Your task to perform on an android device: allow cookies in the chrome app Image 0: 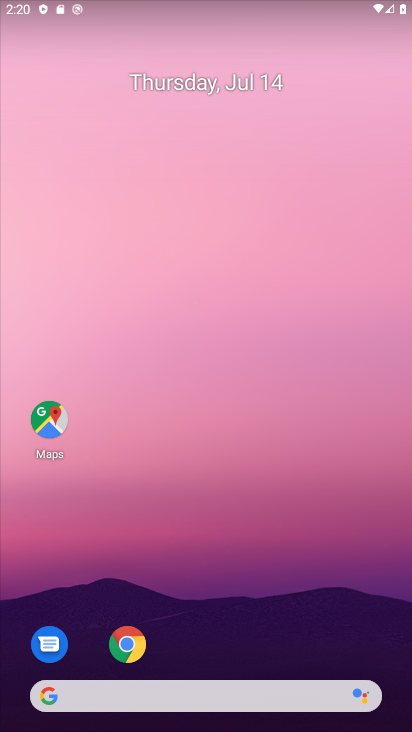
Step 0: drag from (206, 347) to (196, 265)
Your task to perform on an android device: allow cookies in the chrome app Image 1: 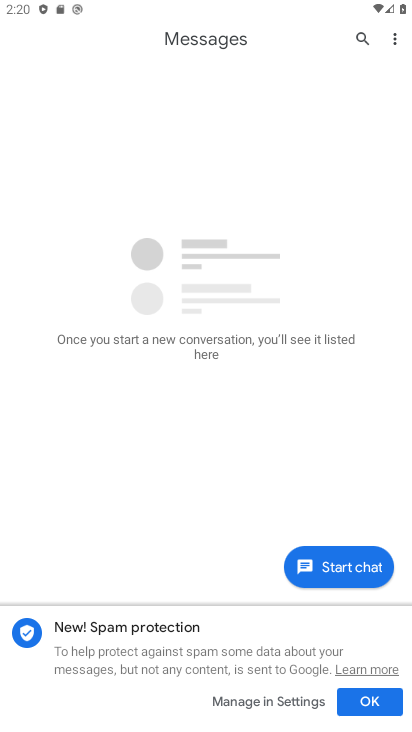
Step 1: press home button
Your task to perform on an android device: allow cookies in the chrome app Image 2: 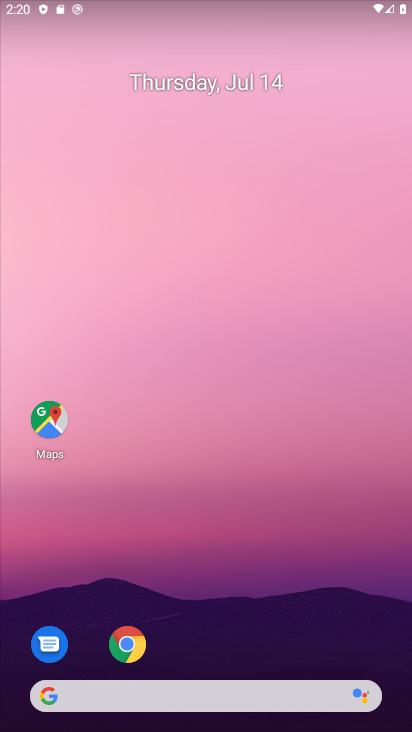
Step 2: click (122, 639)
Your task to perform on an android device: allow cookies in the chrome app Image 3: 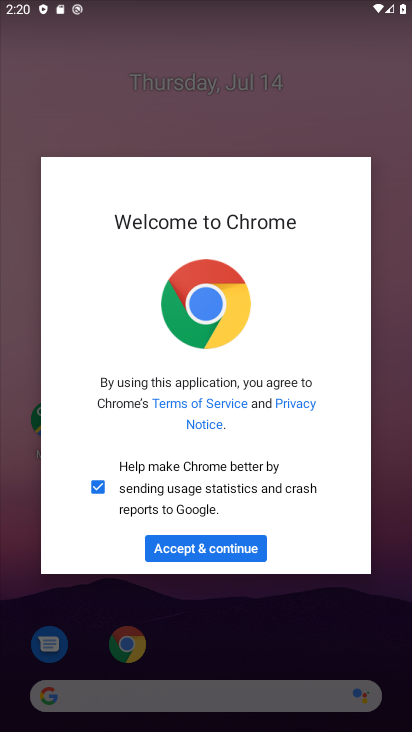
Step 3: click (231, 546)
Your task to perform on an android device: allow cookies in the chrome app Image 4: 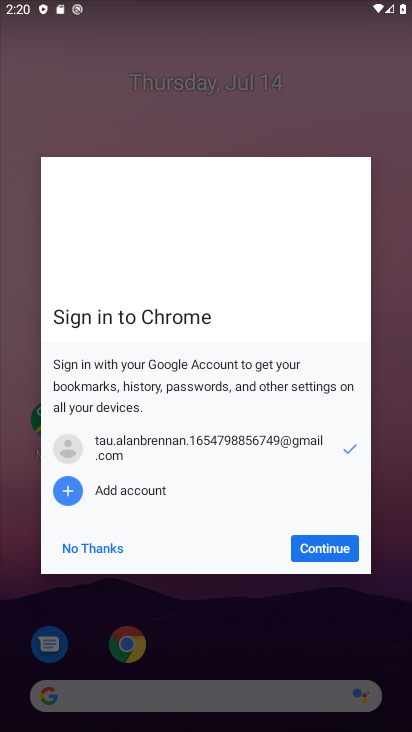
Step 4: click (311, 550)
Your task to perform on an android device: allow cookies in the chrome app Image 5: 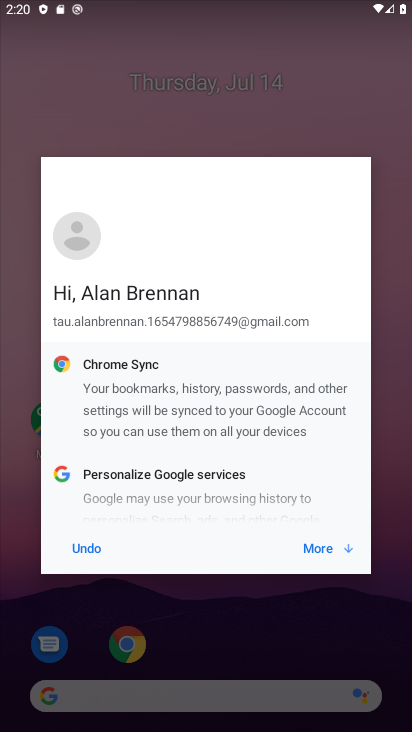
Step 5: click (311, 550)
Your task to perform on an android device: allow cookies in the chrome app Image 6: 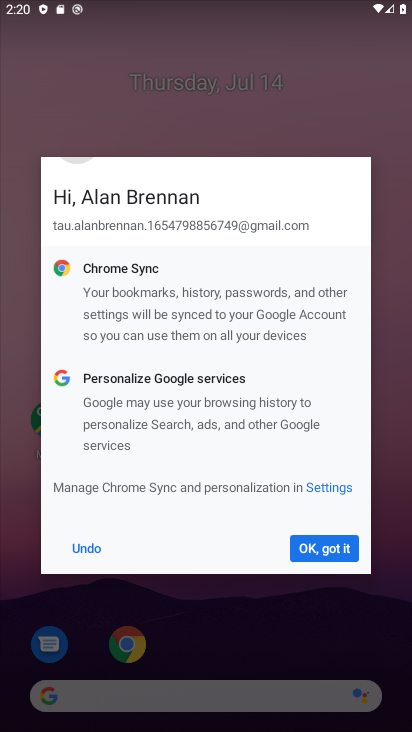
Step 6: click (311, 550)
Your task to perform on an android device: allow cookies in the chrome app Image 7: 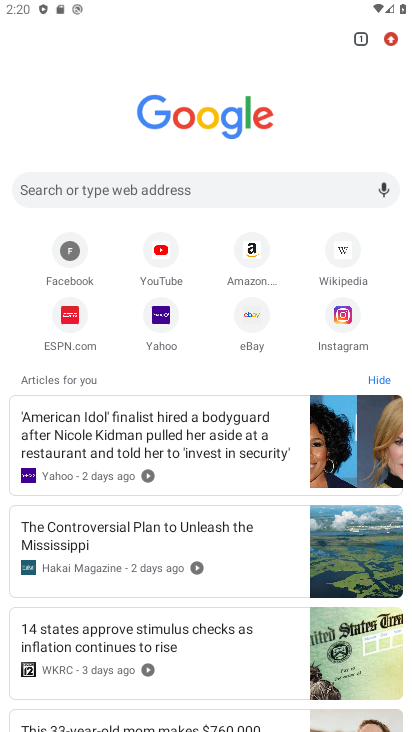
Step 7: click (392, 40)
Your task to perform on an android device: allow cookies in the chrome app Image 8: 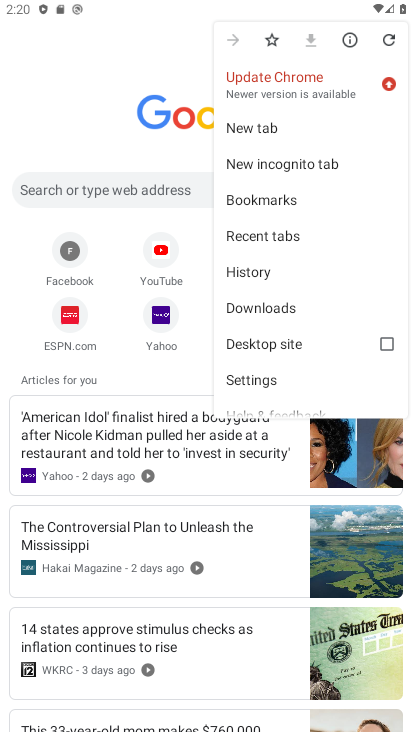
Step 8: click (279, 381)
Your task to perform on an android device: allow cookies in the chrome app Image 9: 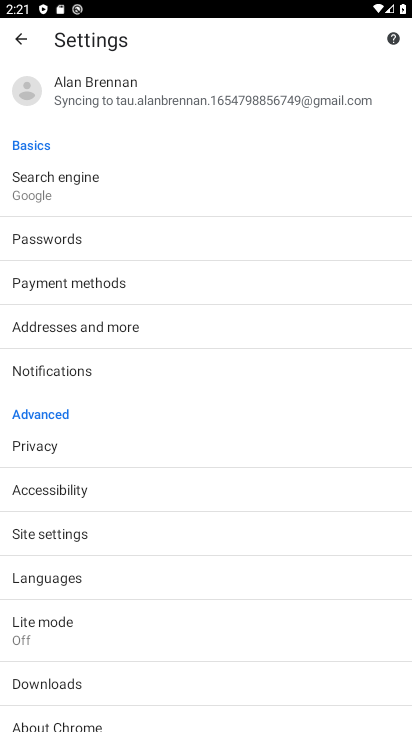
Step 9: click (130, 535)
Your task to perform on an android device: allow cookies in the chrome app Image 10: 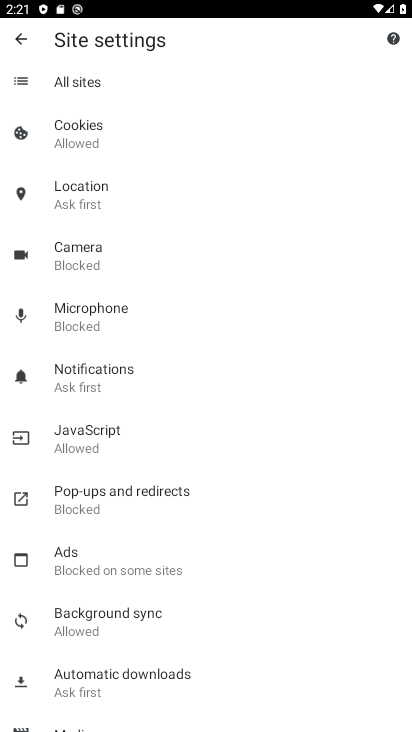
Step 10: click (168, 145)
Your task to perform on an android device: allow cookies in the chrome app Image 11: 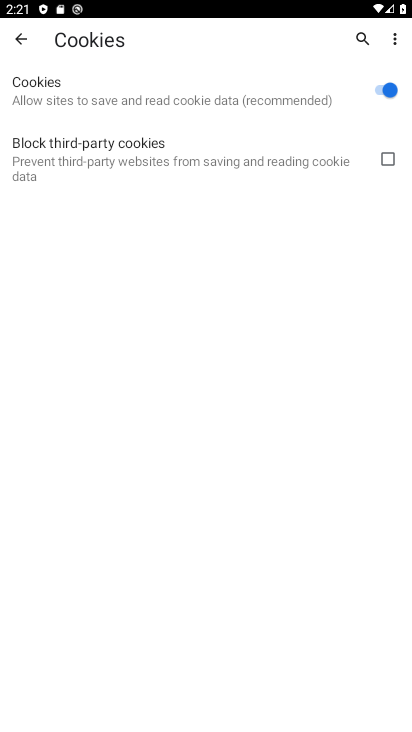
Step 11: task complete